Your task to perform on an android device: see creations saved in the google photos Image 0: 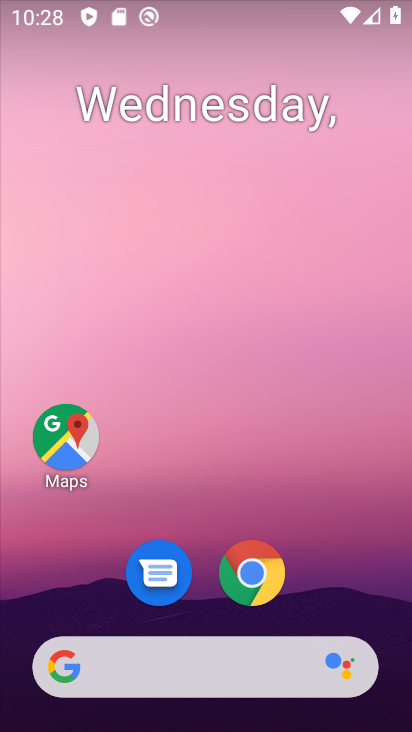
Step 0: drag from (332, 596) to (354, 201)
Your task to perform on an android device: see creations saved in the google photos Image 1: 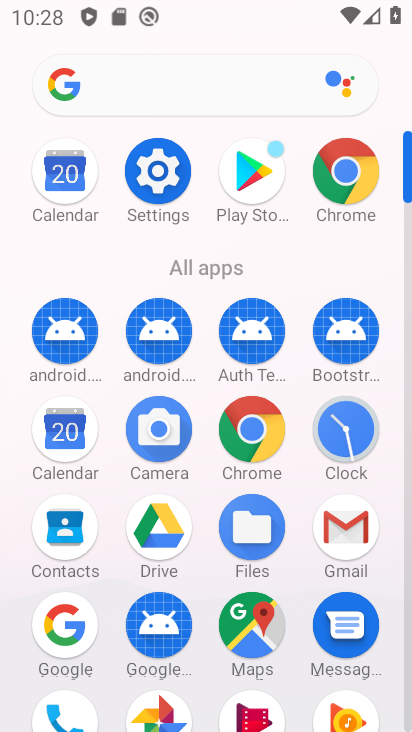
Step 1: drag from (214, 637) to (214, 235)
Your task to perform on an android device: see creations saved in the google photos Image 2: 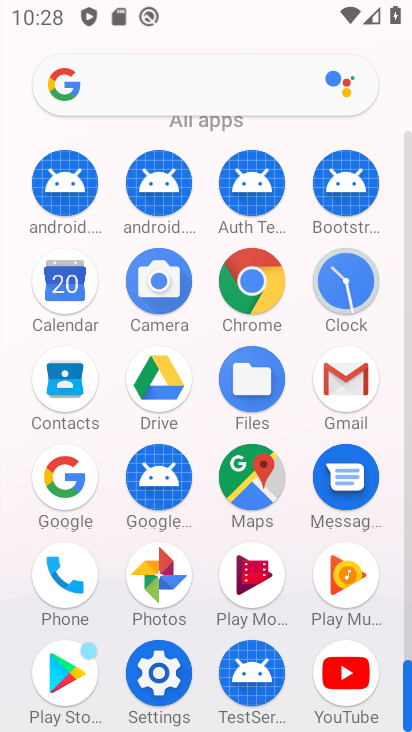
Step 2: click (169, 584)
Your task to perform on an android device: see creations saved in the google photos Image 3: 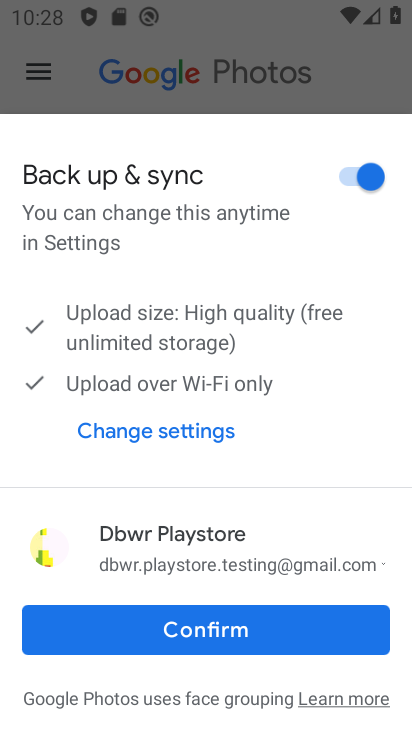
Step 3: click (183, 637)
Your task to perform on an android device: see creations saved in the google photos Image 4: 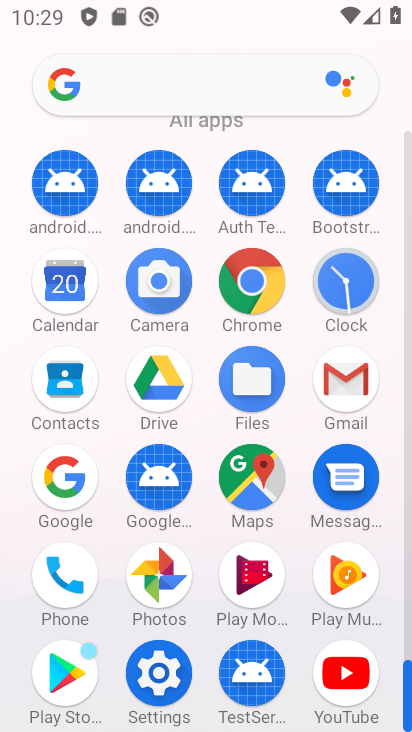
Step 4: drag from (203, 669) to (214, 419)
Your task to perform on an android device: see creations saved in the google photos Image 5: 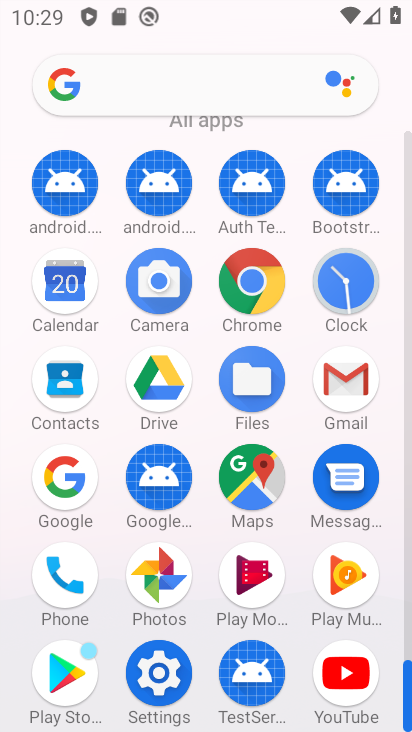
Step 5: drag from (207, 609) to (197, 419)
Your task to perform on an android device: see creations saved in the google photos Image 6: 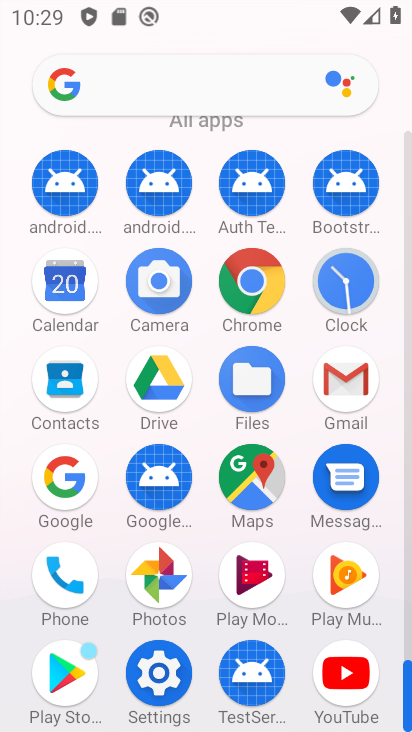
Step 6: click (173, 574)
Your task to perform on an android device: see creations saved in the google photos Image 7: 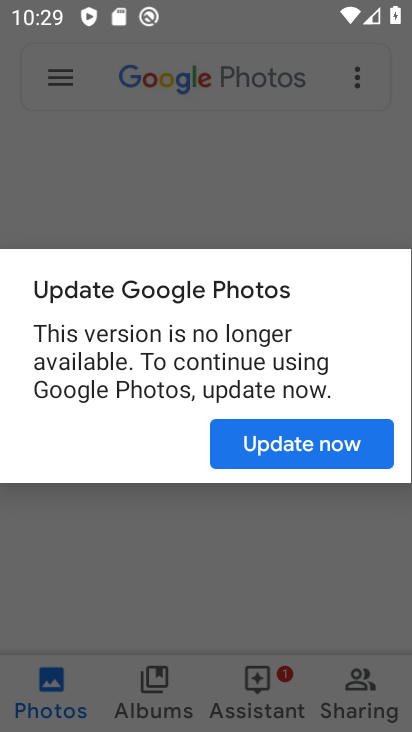
Step 7: click (284, 452)
Your task to perform on an android device: see creations saved in the google photos Image 8: 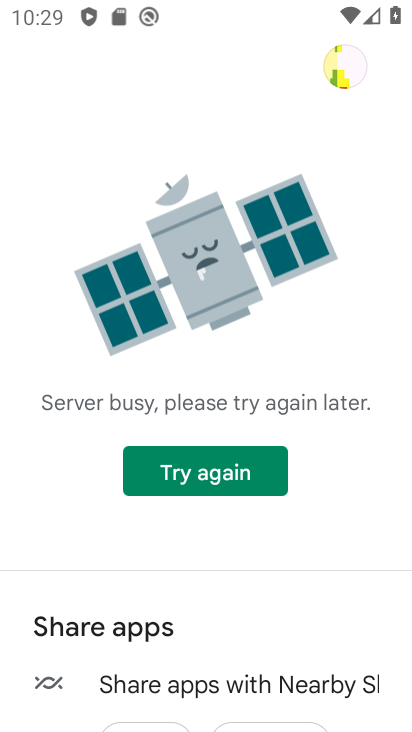
Step 8: task complete